Your task to perform on an android device: What's the weather? Image 0: 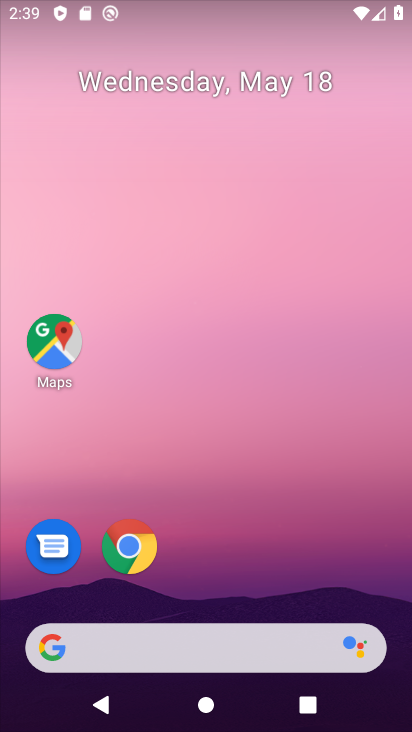
Step 0: drag from (381, 676) to (178, 166)
Your task to perform on an android device: What's the weather? Image 1: 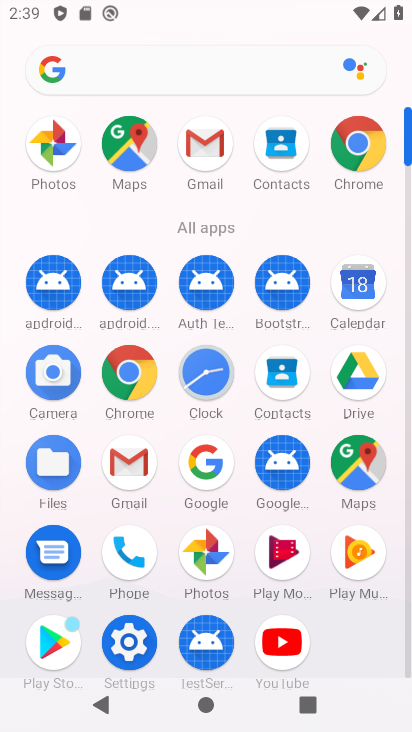
Step 1: press back button
Your task to perform on an android device: What's the weather? Image 2: 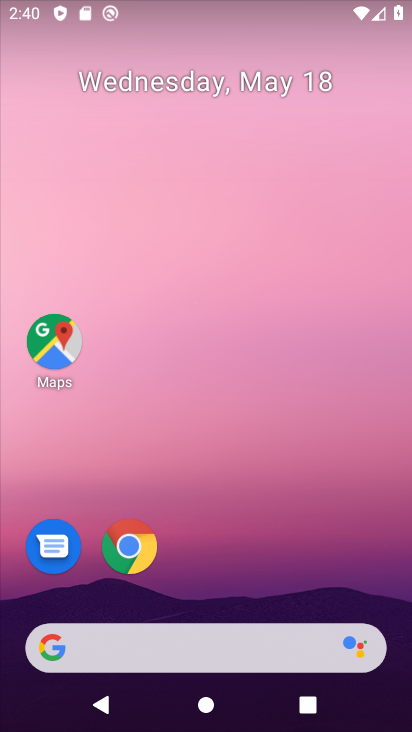
Step 2: drag from (5, 126) to (403, 327)
Your task to perform on an android device: What's the weather? Image 3: 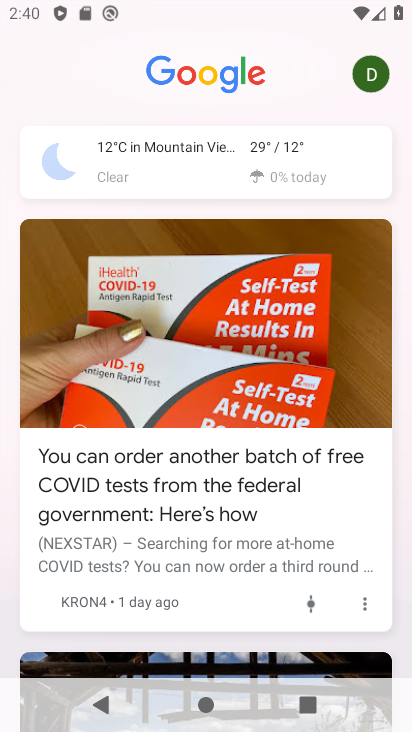
Step 3: click (179, 171)
Your task to perform on an android device: What's the weather? Image 4: 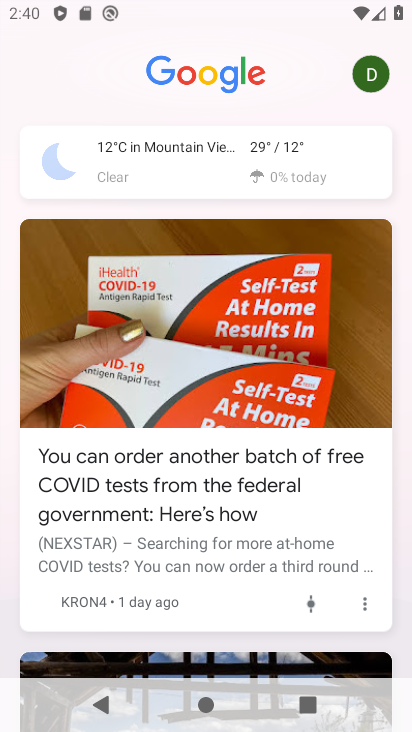
Step 4: click (180, 171)
Your task to perform on an android device: What's the weather? Image 5: 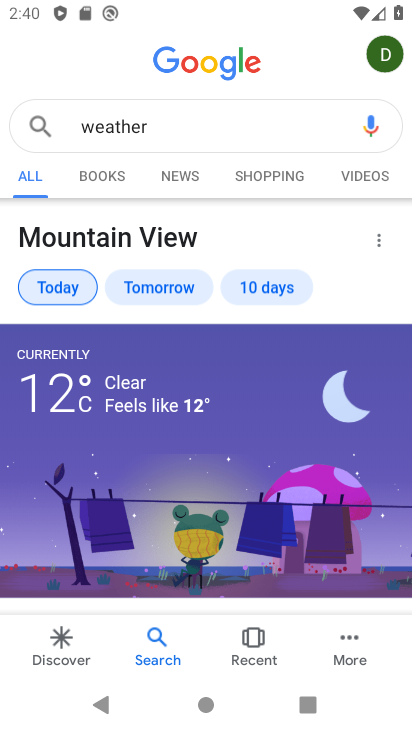
Step 5: task complete